Your task to perform on an android device: create a new album in the google photos Image 0: 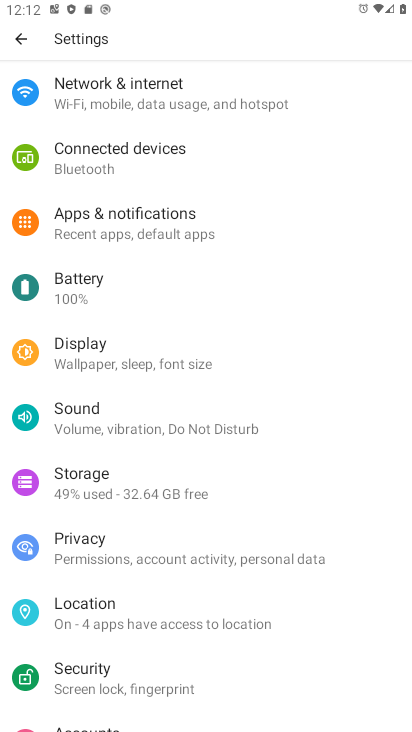
Step 0: press home button
Your task to perform on an android device: create a new album in the google photos Image 1: 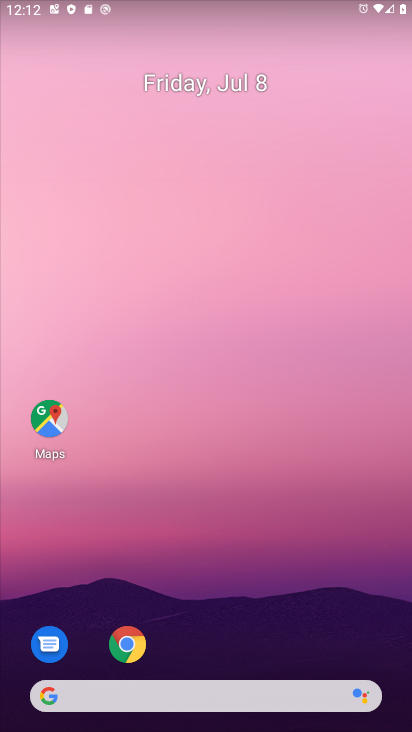
Step 1: drag from (246, 639) to (286, 22)
Your task to perform on an android device: create a new album in the google photos Image 2: 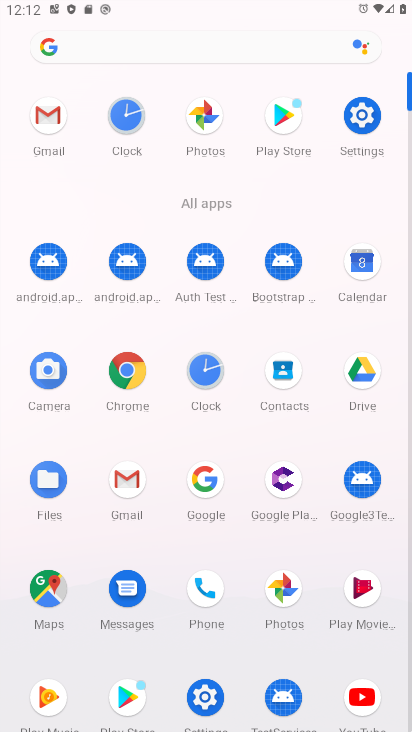
Step 2: click (290, 597)
Your task to perform on an android device: create a new album in the google photos Image 3: 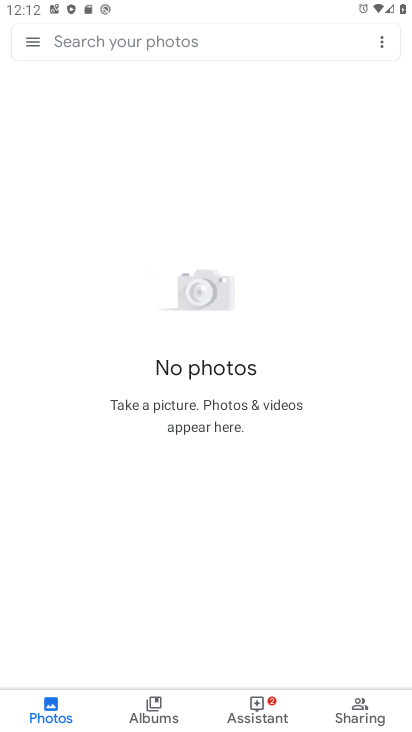
Step 3: click (159, 710)
Your task to perform on an android device: create a new album in the google photos Image 4: 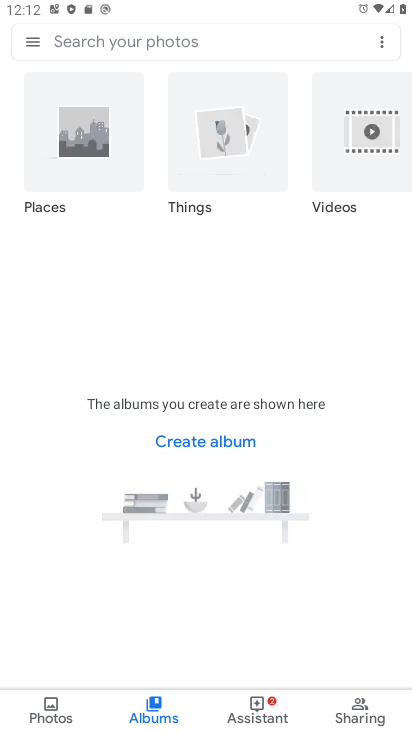
Step 4: click (205, 436)
Your task to perform on an android device: create a new album in the google photos Image 5: 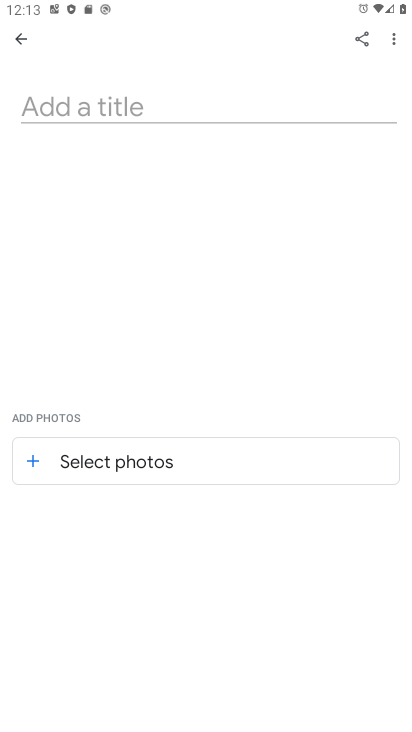
Step 5: click (157, 468)
Your task to perform on an android device: create a new album in the google photos Image 6: 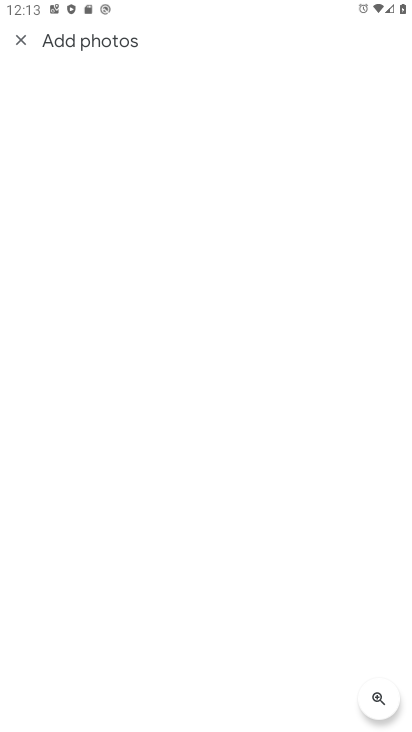
Step 6: task complete